Your task to perform on an android device: Check the news Image 0: 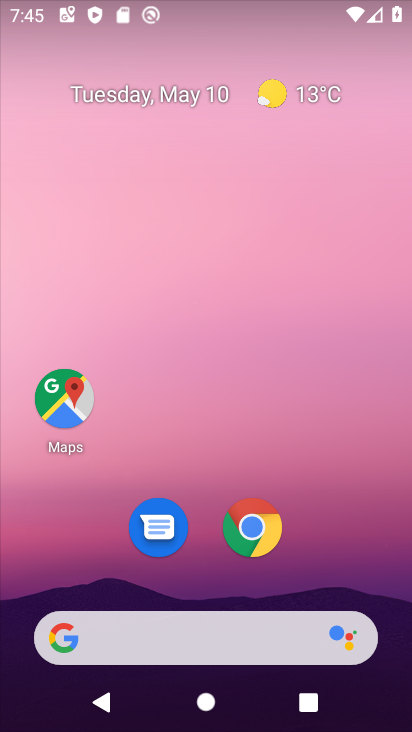
Step 0: click (162, 631)
Your task to perform on an android device: Check the news Image 1: 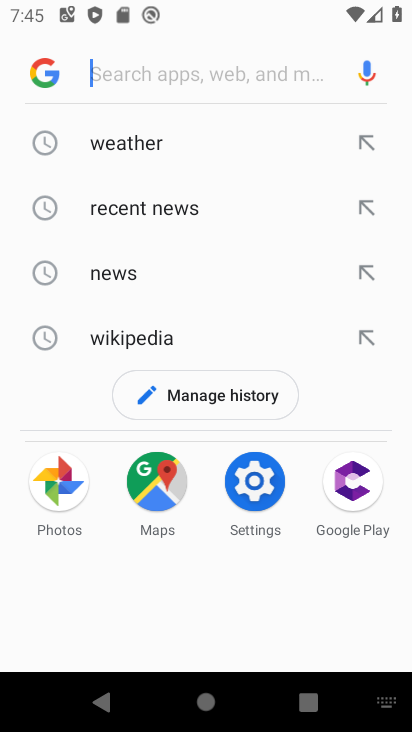
Step 1: click (121, 285)
Your task to perform on an android device: Check the news Image 2: 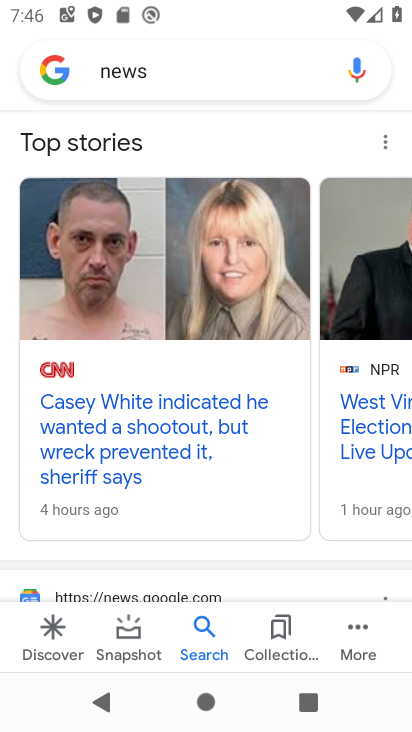
Step 2: task complete